Your task to perform on an android device: Go to Yahoo.com Image 0: 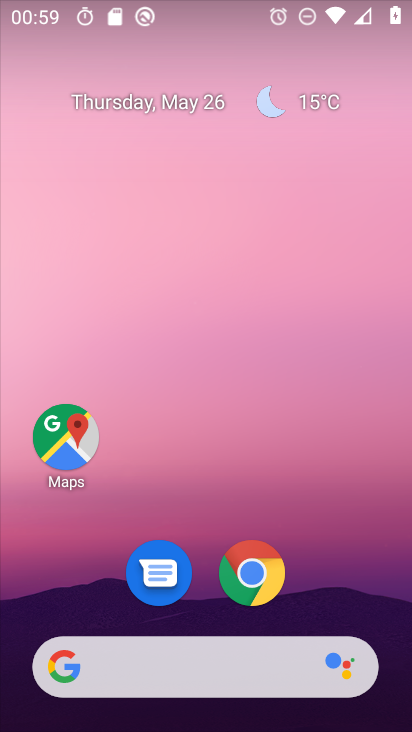
Step 0: click (252, 580)
Your task to perform on an android device: Go to Yahoo.com Image 1: 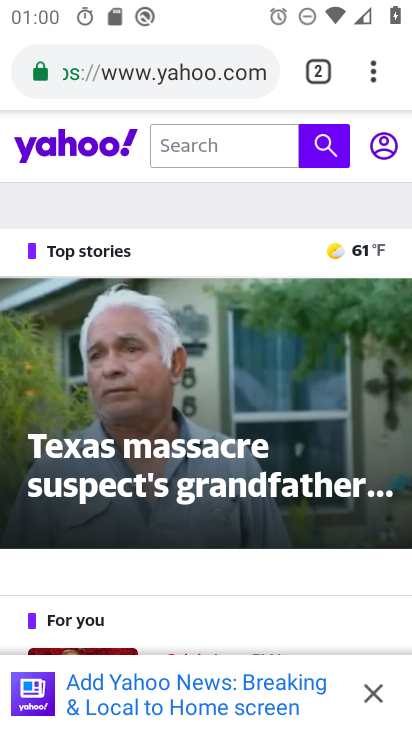
Step 1: task complete